Your task to perform on an android device: Go to sound settings Image 0: 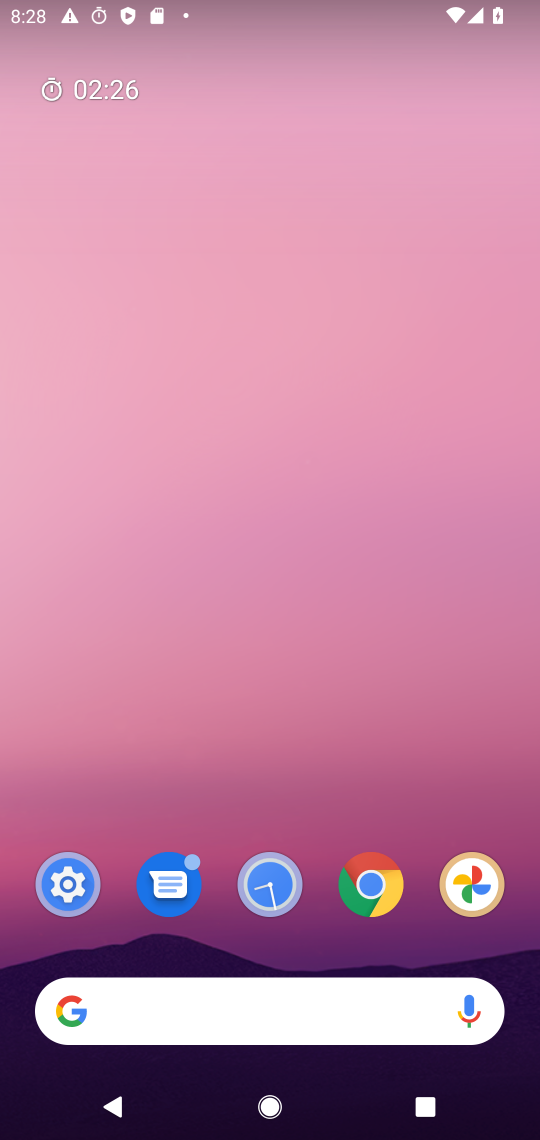
Step 0: press home button
Your task to perform on an android device: Go to sound settings Image 1: 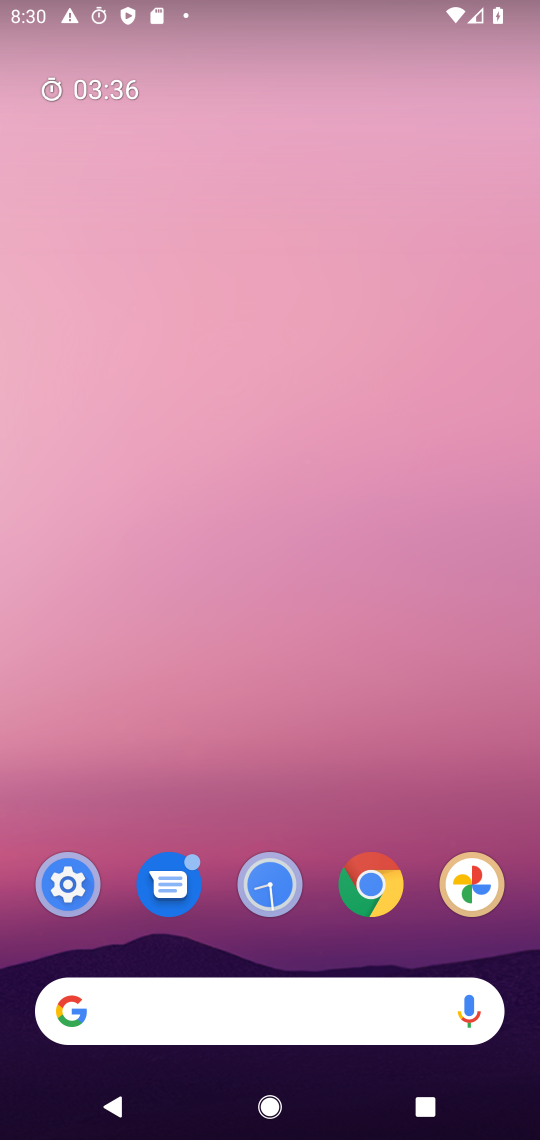
Step 1: drag from (285, 936) to (217, 926)
Your task to perform on an android device: Go to sound settings Image 2: 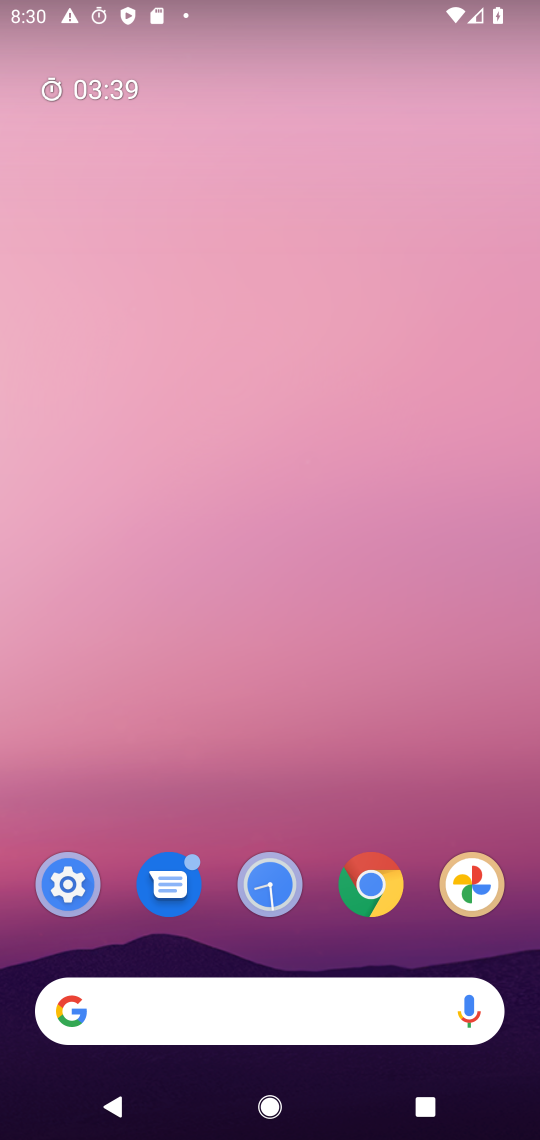
Step 2: click (82, 896)
Your task to perform on an android device: Go to sound settings Image 3: 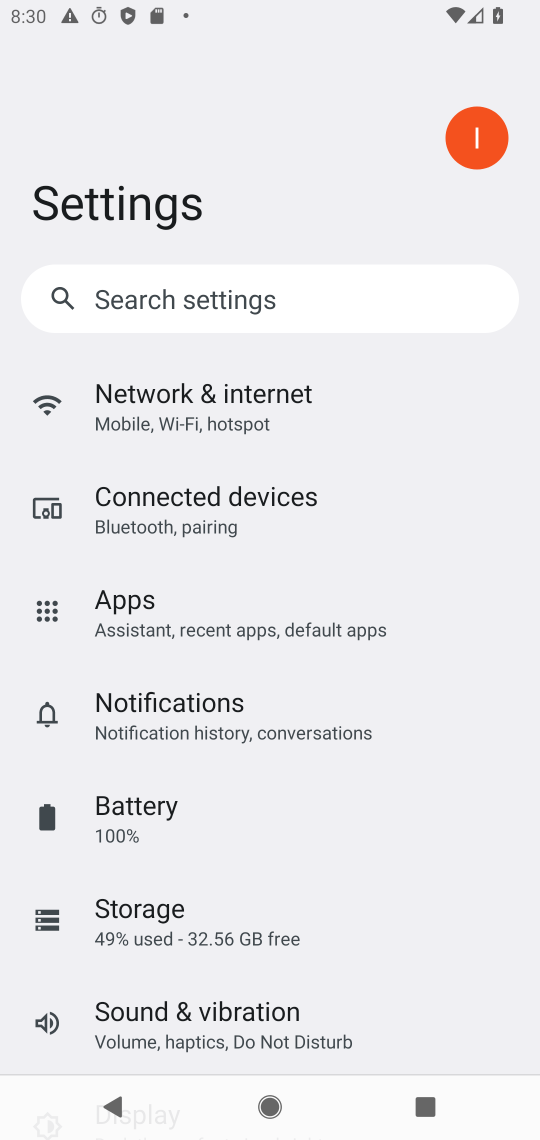
Step 3: drag from (410, 899) to (521, 488)
Your task to perform on an android device: Go to sound settings Image 4: 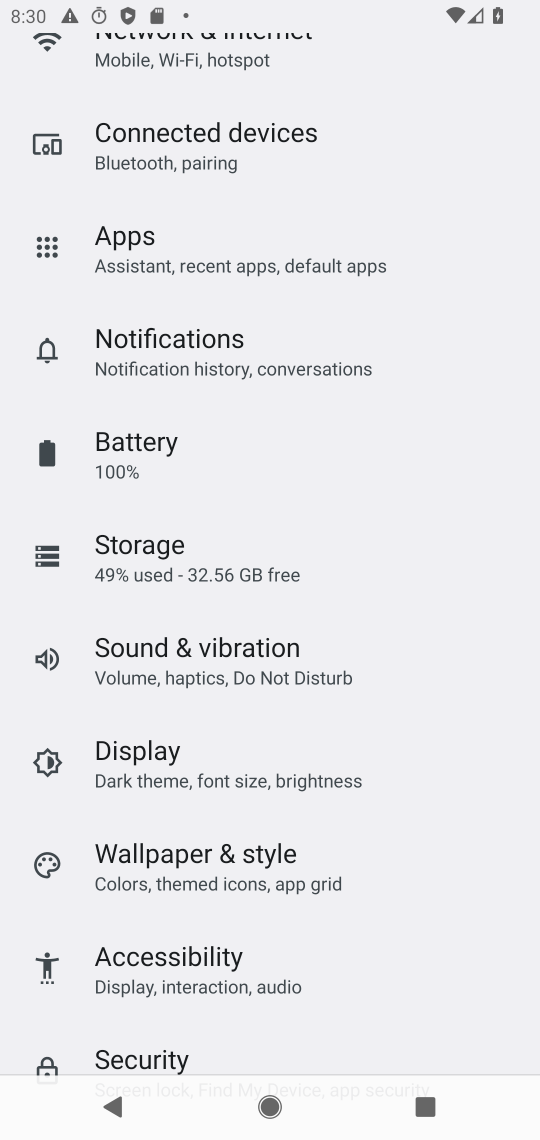
Step 4: click (184, 686)
Your task to perform on an android device: Go to sound settings Image 5: 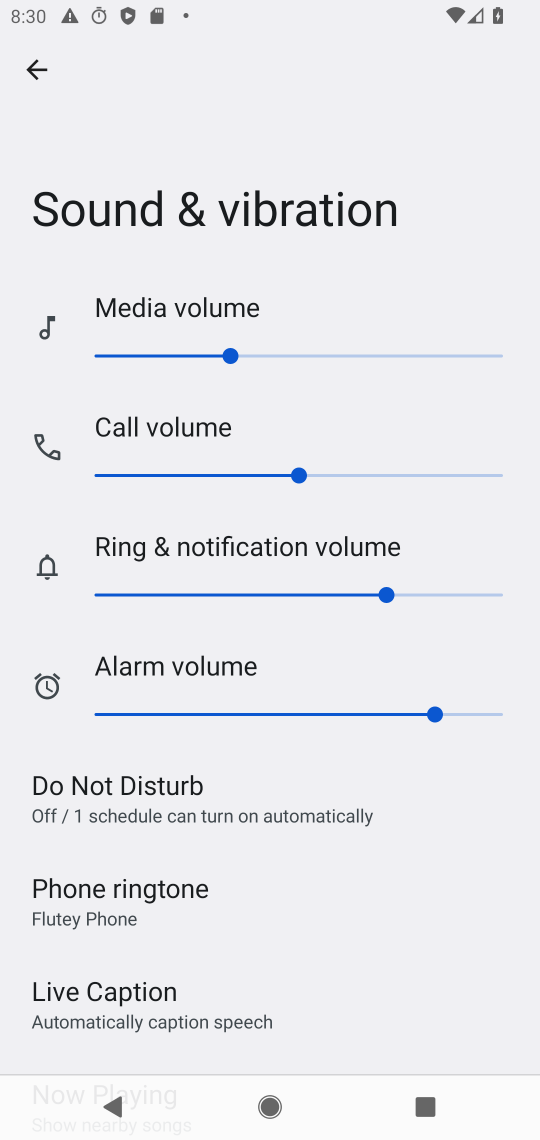
Step 5: task complete